Your task to perform on an android device: change notification settings in the gmail app Image 0: 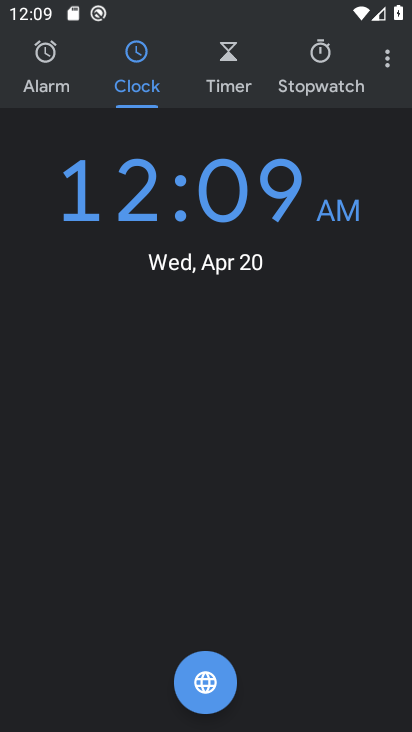
Step 0: press home button
Your task to perform on an android device: change notification settings in the gmail app Image 1: 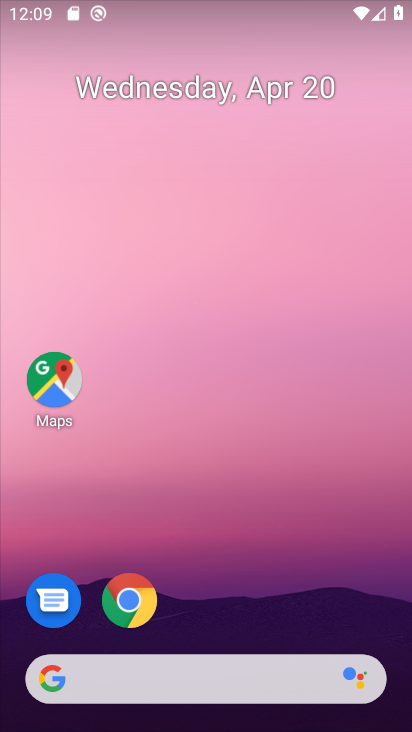
Step 1: drag from (349, 527) to (362, 54)
Your task to perform on an android device: change notification settings in the gmail app Image 2: 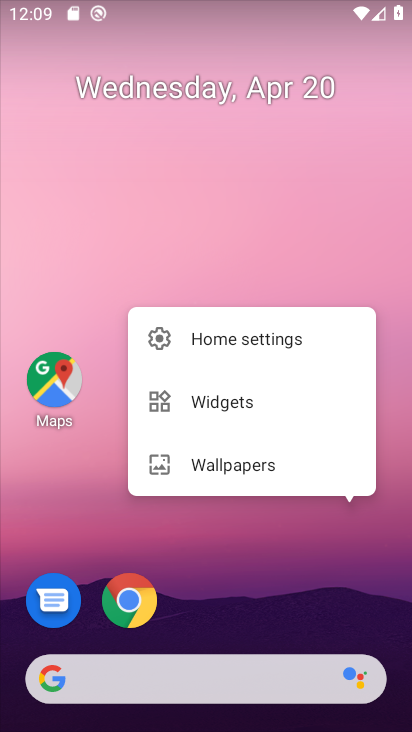
Step 2: drag from (375, 534) to (375, 157)
Your task to perform on an android device: change notification settings in the gmail app Image 3: 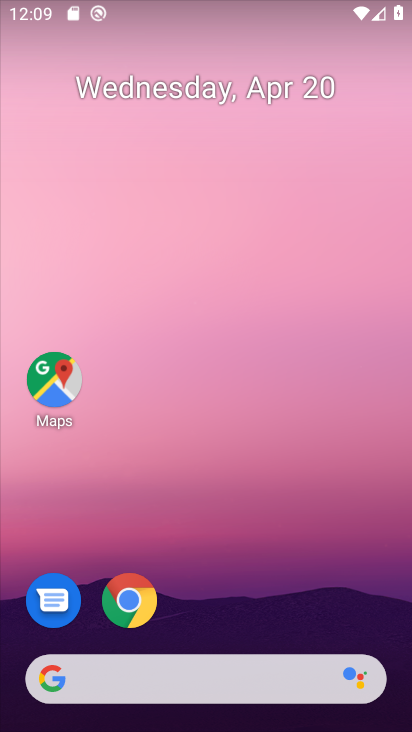
Step 3: drag from (355, 516) to (343, 143)
Your task to perform on an android device: change notification settings in the gmail app Image 4: 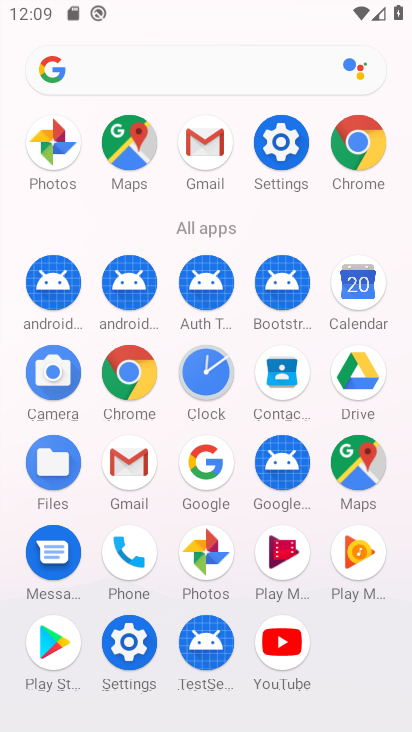
Step 4: click (131, 476)
Your task to perform on an android device: change notification settings in the gmail app Image 5: 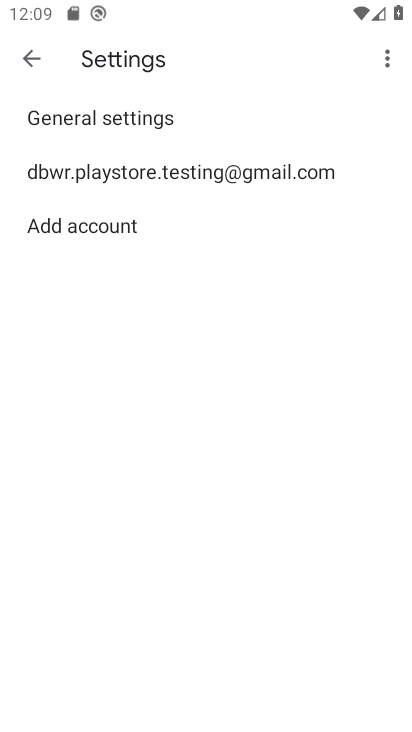
Step 5: click (159, 174)
Your task to perform on an android device: change notification settings in the gmail app Image 6: 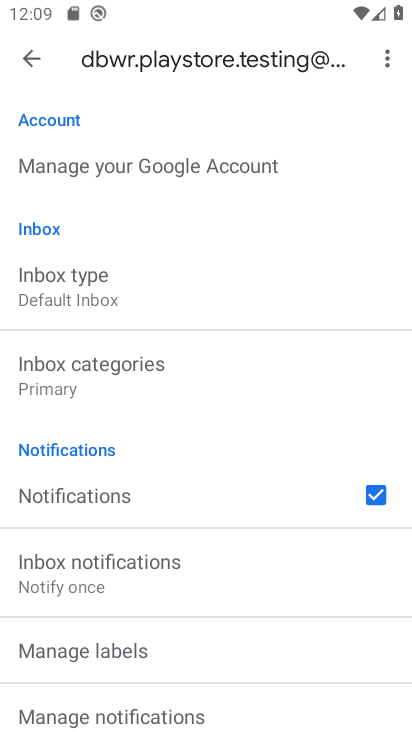
Step 6: drag from (203, 646) to (221, 443)
Your task to perform on an android device: change notification settings in the gmail app Image 7: 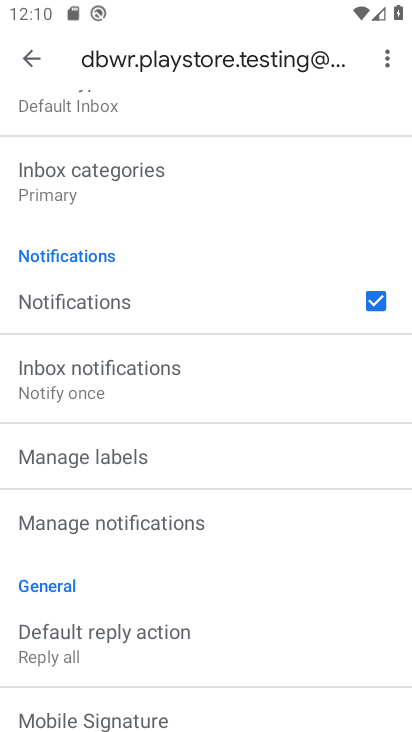
Step 7: drag from (139, 310) to (184, 597)
Your task to perform on an android device: change notification settings in the gmail app Image 8: 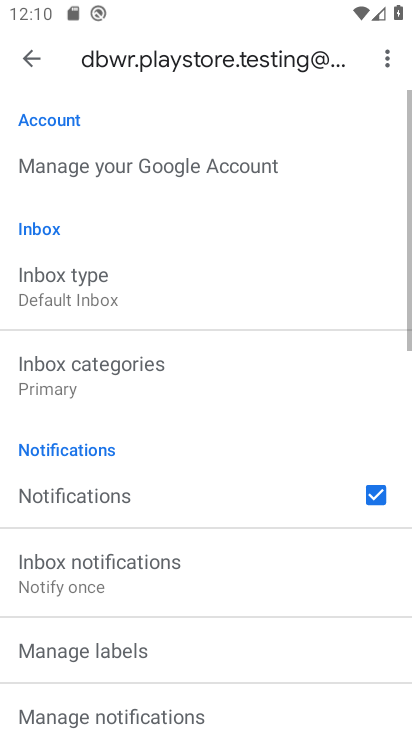
Step 8: drag from (176, 302) to (186, 572)
Your task to perform on an android device: change notification settings in the gmail app Image 9: 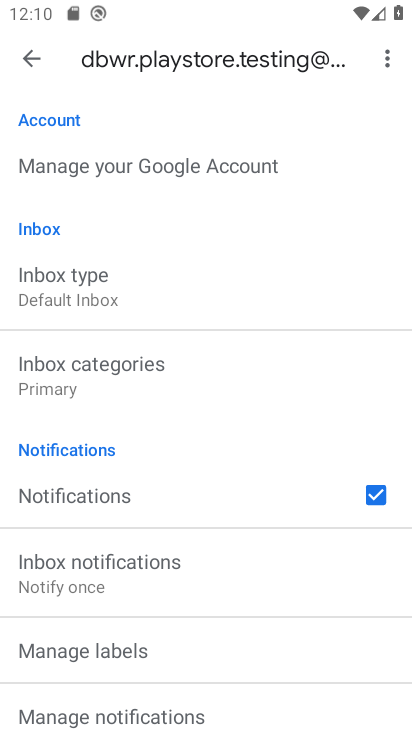
Step 9: click (49, 476)
Your task to perform on an android device: change notification settings in the gmail app Image 10: 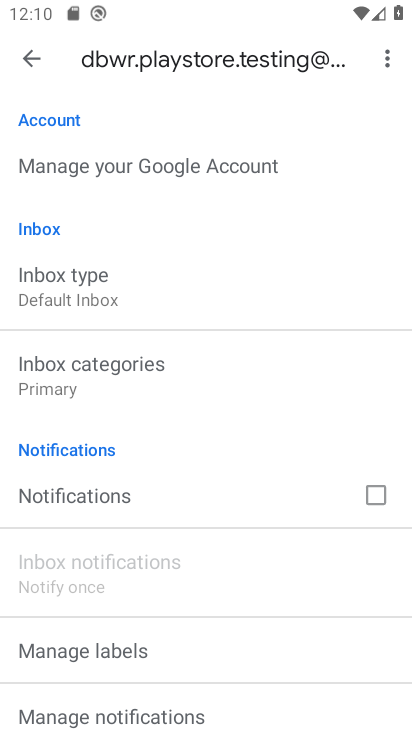
Step 10: drag from (63, 645) to (80, 461)
Your task to perform on an android device: change notification settings in the gmail app Image 11: 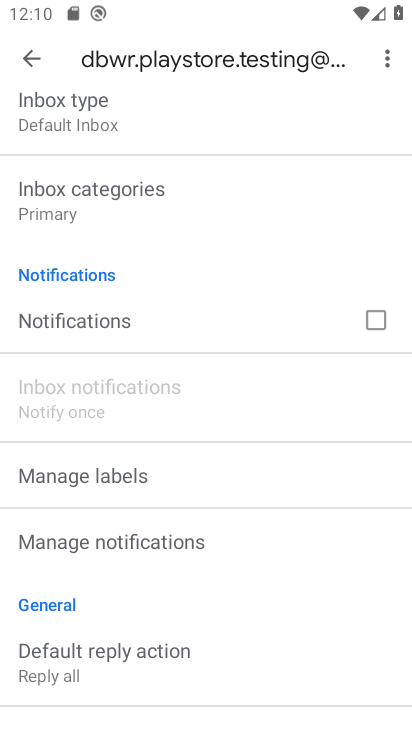
Step 11: click (69, 532)
Your task to perform on an android device: change notification settings in the gmail app Image 12: 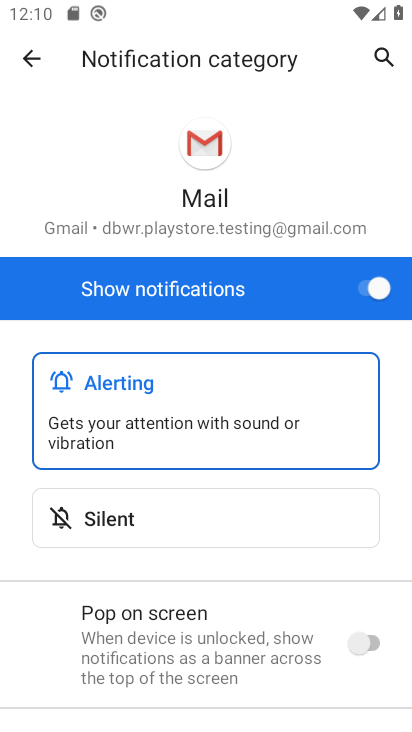
Step 12: click (364, 284)
Your task to perform on an android device: change notification settings in the gmail app Image 13: 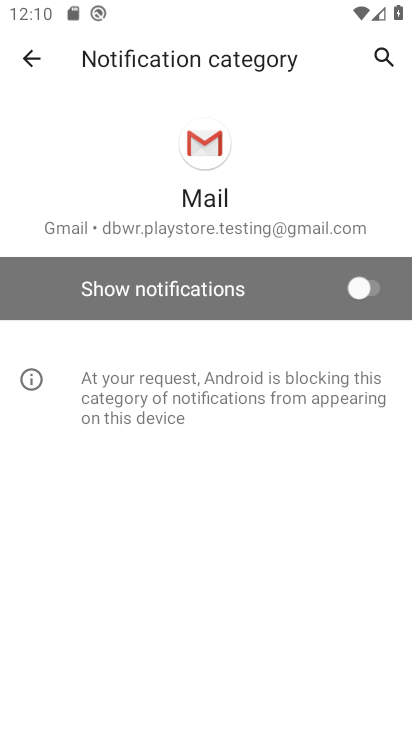
Step 13: task complete